Your task to perform on an android device: turn off notifications in google photos Image 0: 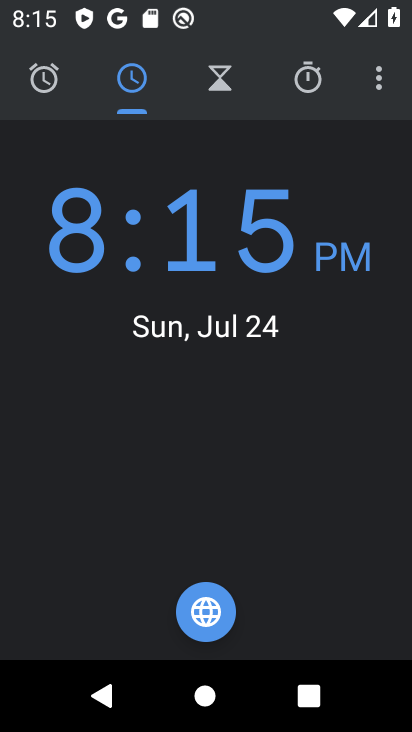
Step 0: press back button
Your task to perform on an android device: turn off notifications in google photos Image 1: 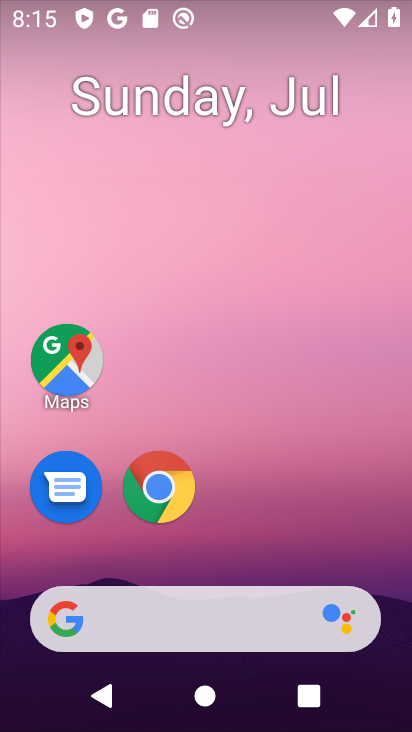
Step 1: drag from (245, 580) to (294, 14)
Your task to perform on an android device: turn off notifications in google photos Image 2: 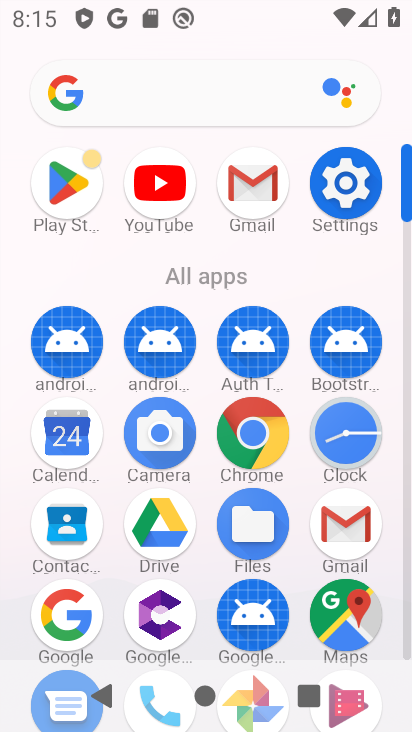
Step 2: drag from (188, 581) to (262, 163)
Your task to perform on an android device: turn off notifications in google photos Image 3: 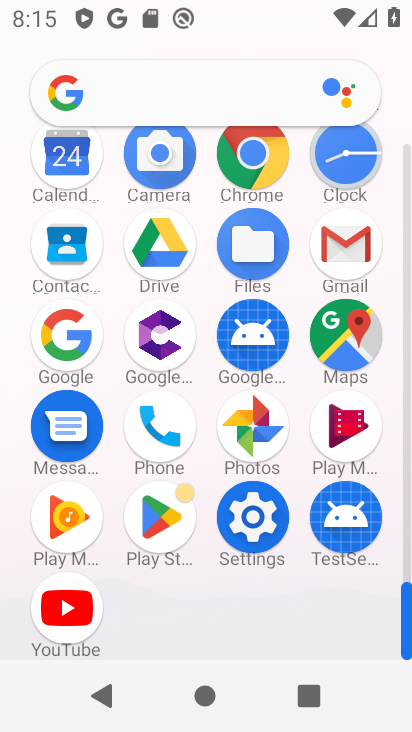
Step 3: click (254, 416)
Your task to perform on an android device: turn off notifications in google photos Image 4: 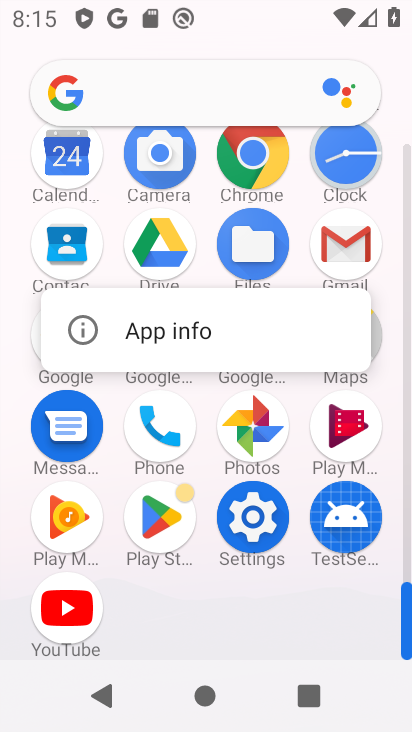
Step 4: click (85, 321)
Your task to perform on an android device: turn off notifications in google photos Image 5: 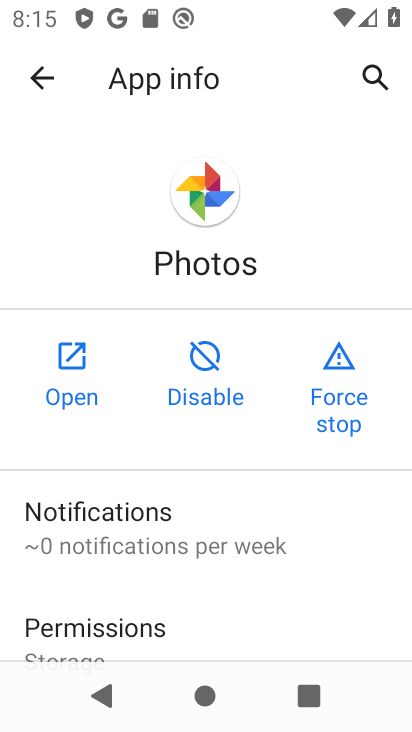
Step 5: click (145, 520)
Your task to perform on an android device: turn off notifications in google photos Image 6: 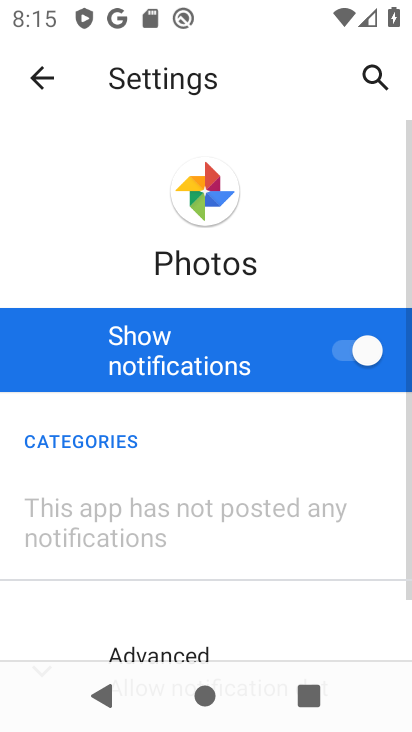
Step 6: click (374, 344)
Your task to perform on an android device: turn off notifications in google photos Image 7: 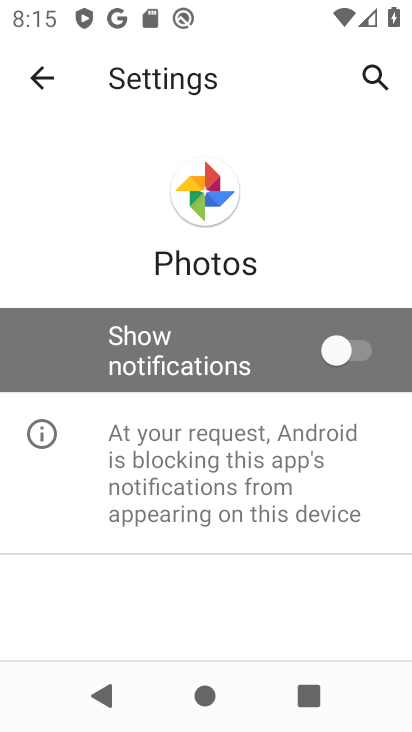
Step 7: task complete